Your task to perform on an android device: turn off notifications in google photos Image 0: 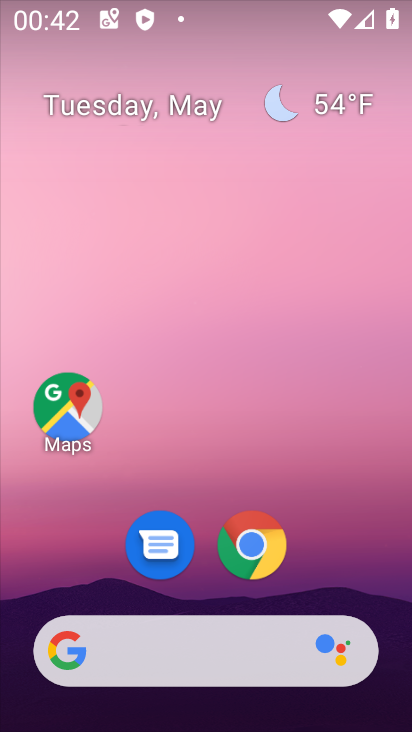
Step 0: drag from (342, 588) to (321, 198)
Your task to perform on an android device: turn off notifications in google photos Image 1: 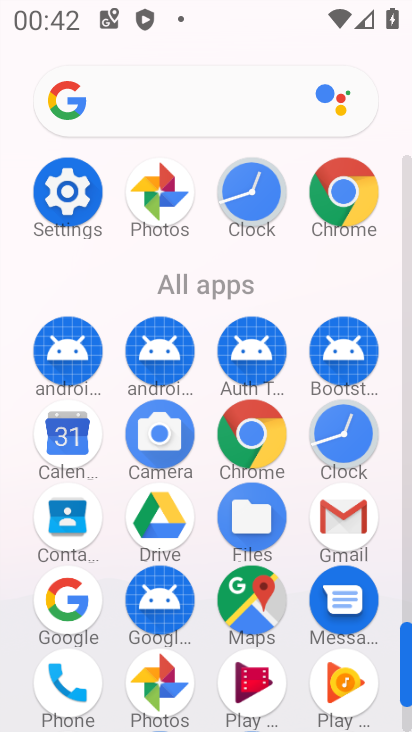
Step 1: click (168, 670)
Your task to perform on an android device: turn off notifications in google photos Image 2: 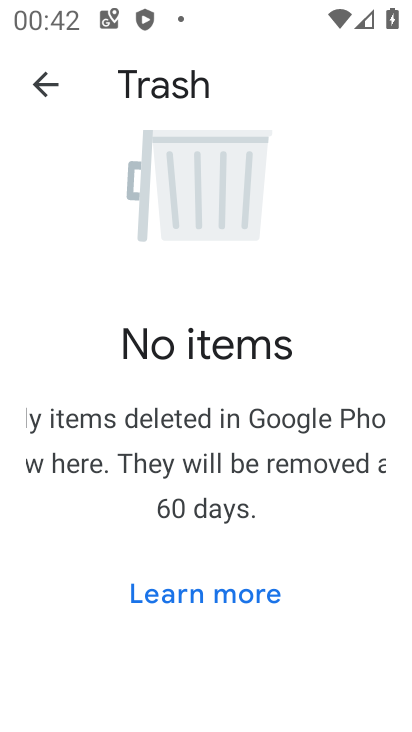
Step 2: click (57, 87)
Your task to perform on an android device: turn off notifications in google photos Image 3: 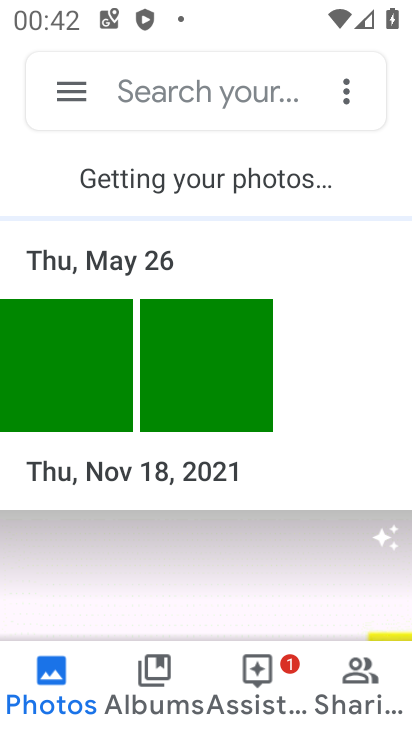
Step 3: click (56, 87)
Your task to perform on an android device: turn off notifications in google photos Image 4: 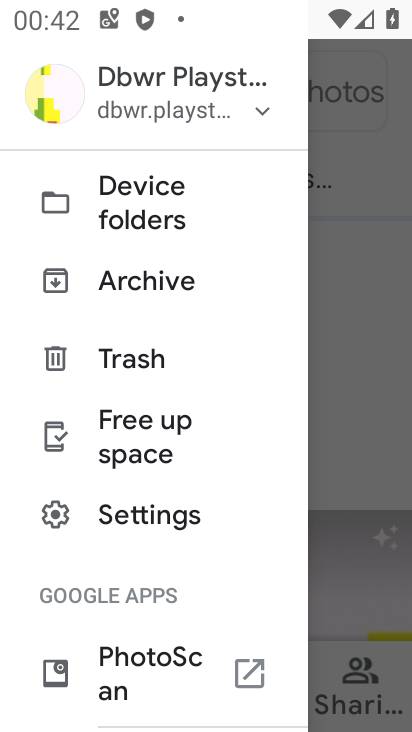
Step 4: click (166, 521)
Your task to perform on an android device: turn off notifications in google photos Image 5: 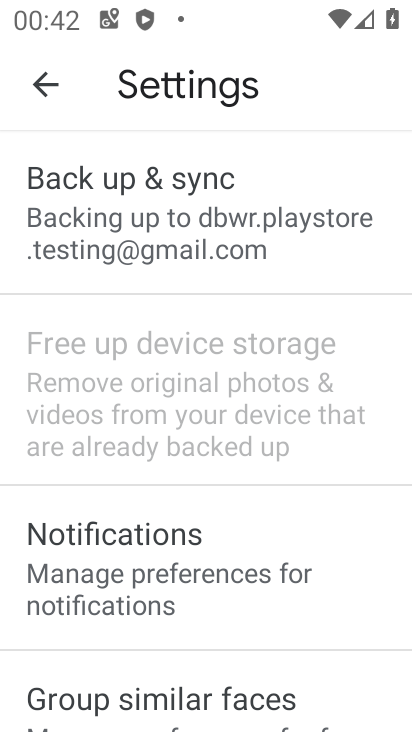
Step 5: click (182, 561)
Your task to perform on an android device: turn off notifications in google photos Image 6: 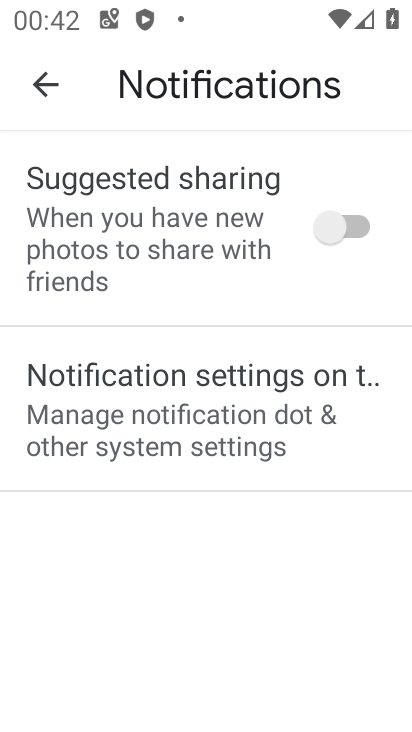
Step 6: click (205, 416)
Your task to perform on an android device: turn off notifications in google photos Image 7: 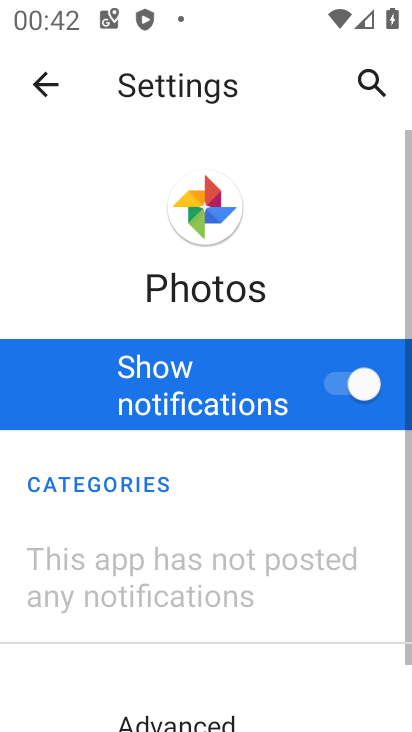
Step 7: click (364, 389)
Your task to perform on an android device: turn off notifications in google photos Image 8: 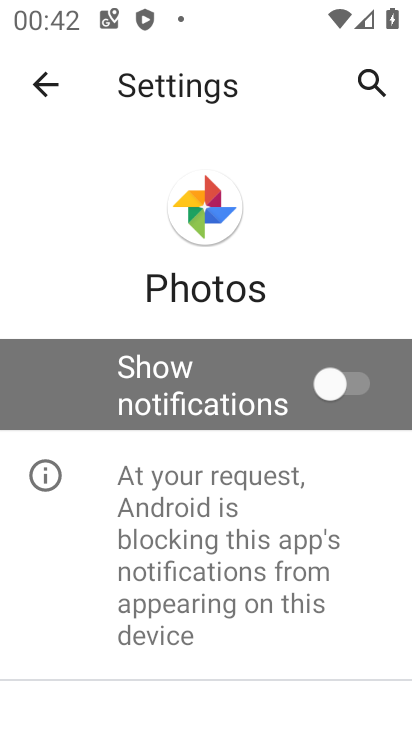
Step 8: task complete